Your task to perform on an android device: Open accessibility settings Image 0: 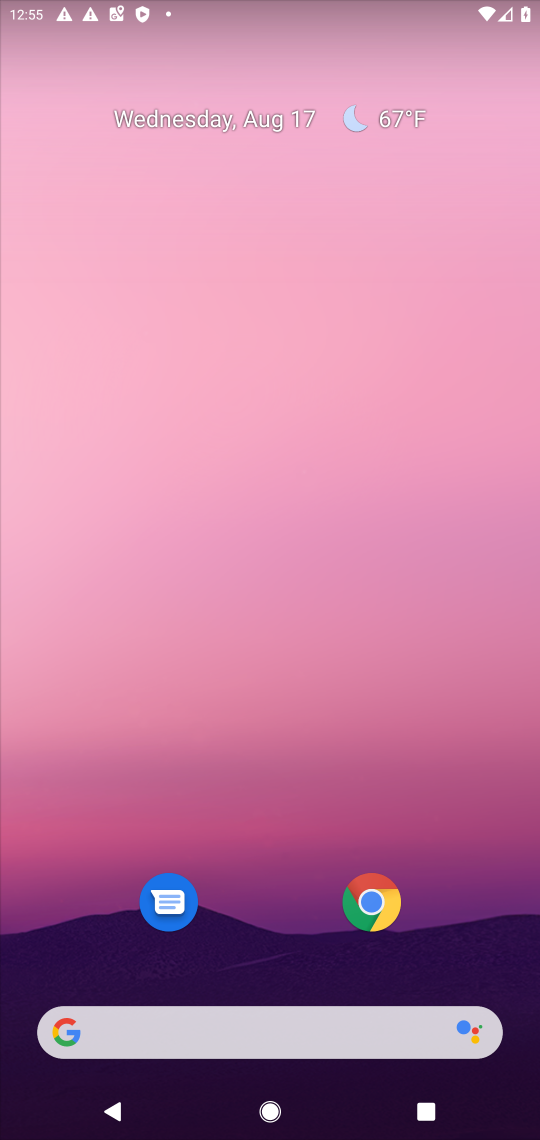
Step 0: drag from (267, 941) to (317, 5)
Your task to perform on an android device: Open accessibility settings Image 1: 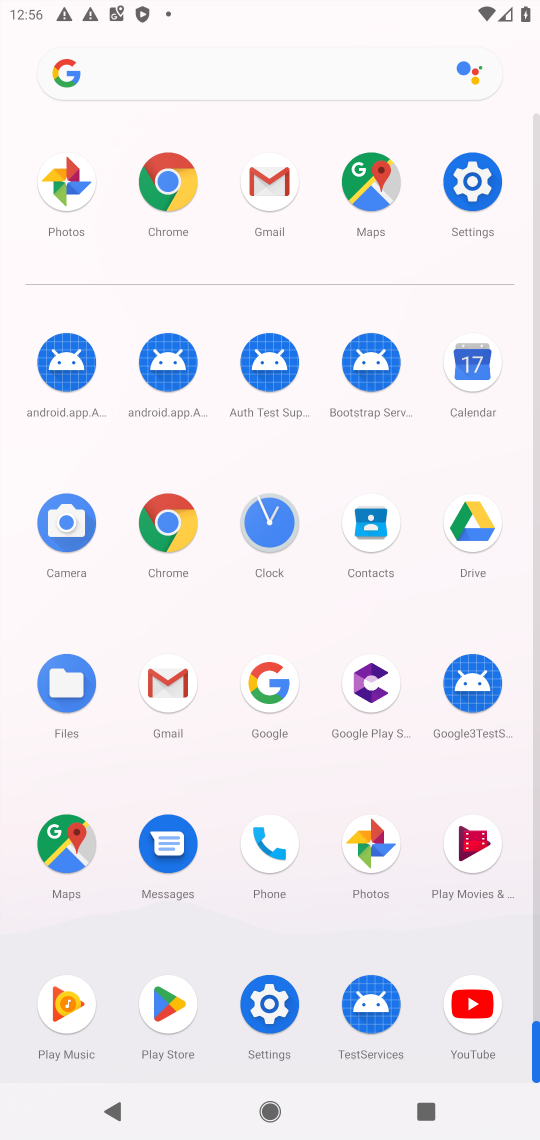
Step 1: click (267, 999)
Your task to perform on an android device: Open accessibility settings Image 2: 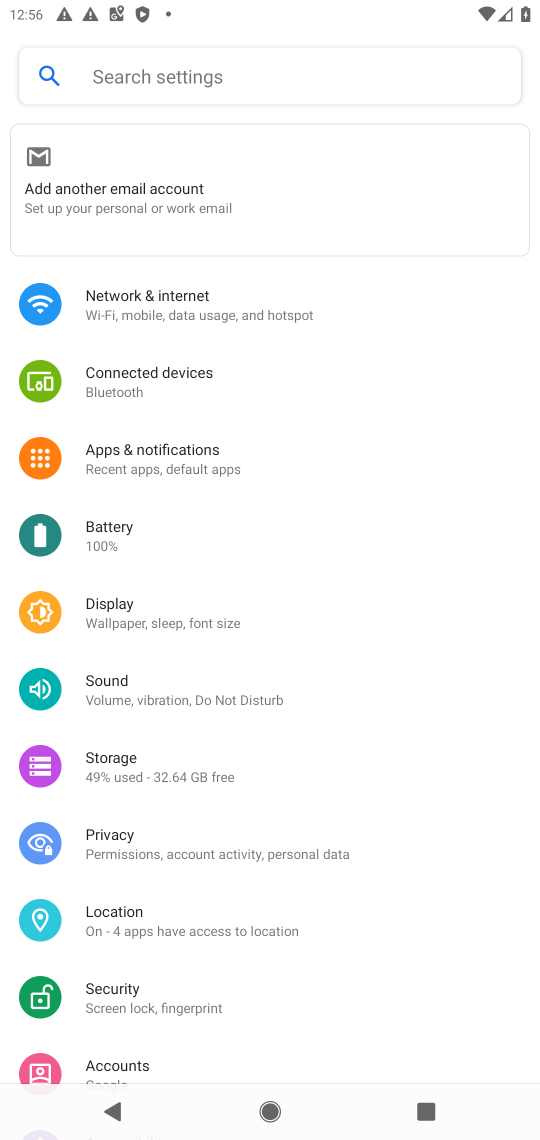
Step 2: drag from (204, 968) to (246, 392)
Your task to perform on an android device: Open accessibility settings Image 3: 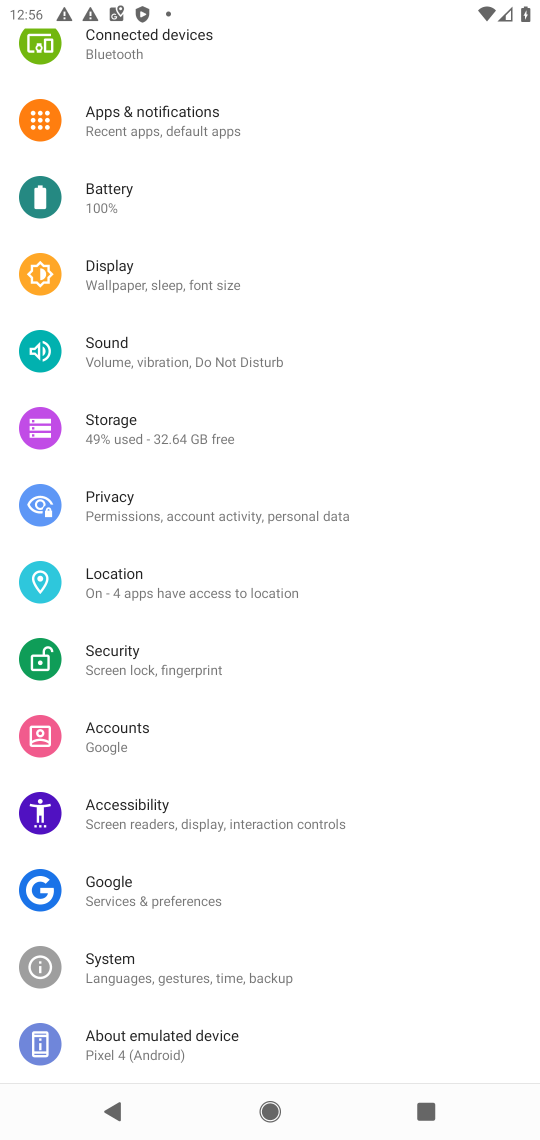
Step 3: click (186, 800)
Your task to perform on an android device: Open accessibility settings Image 4: 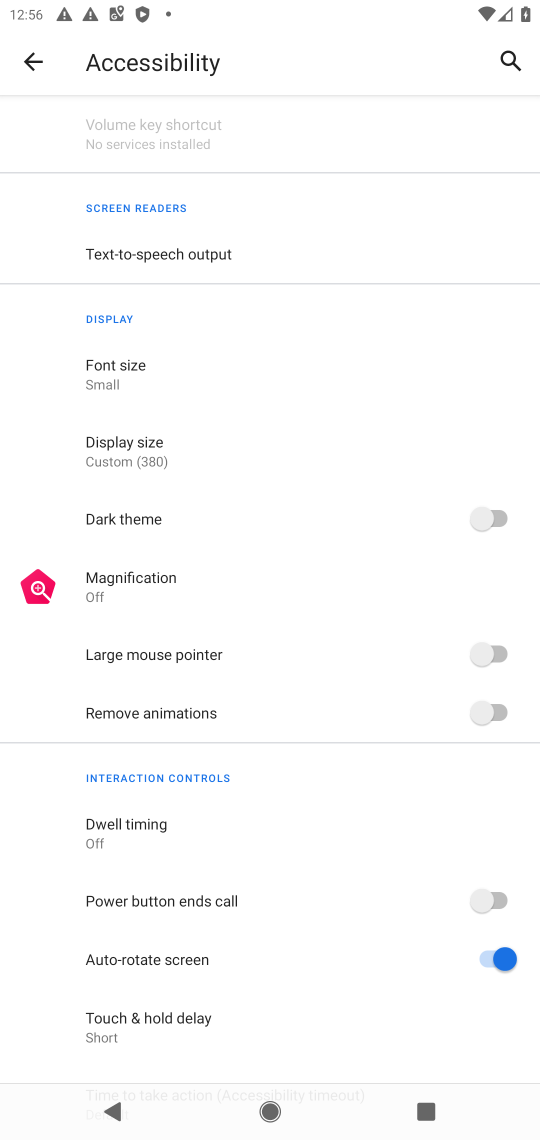
Step 4: task complete